Your task to perform on an android device: turn off location Image 0: 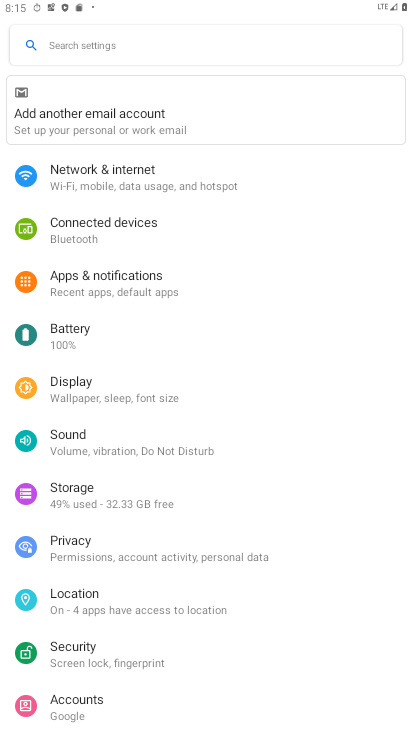
Step 0: press home button
Your task to perform on an android device: turn off location Image 1: 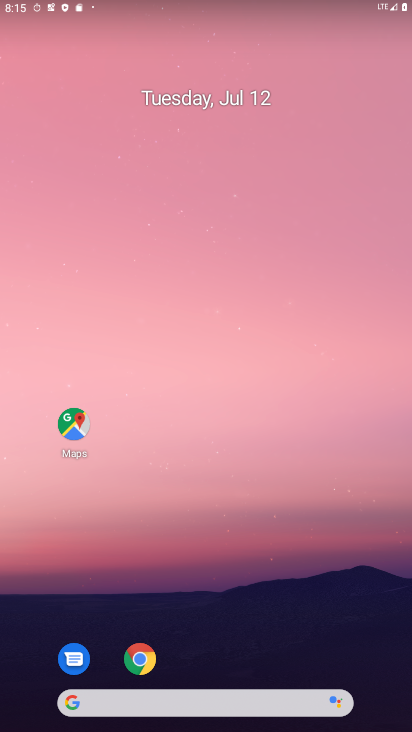
Step 1: drag from (284, 527) to (409, 427)
Your task to perform on an android device: turn off location Image 2: 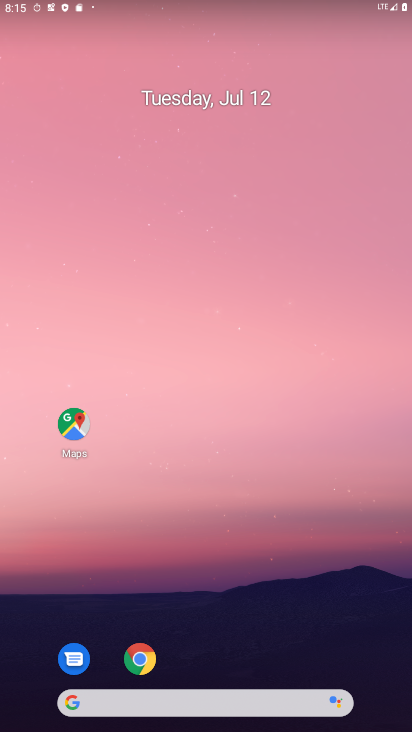
Step 2: drag from (185, 168) to (131, 26)
Your task to perform on an android device: turn off location Image 3: 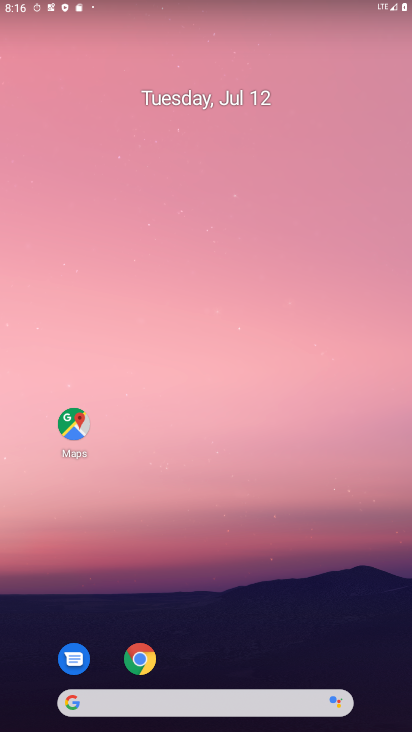
Step 3: drag from (386, 678) to (242, 16)
Your task to perform on an android device: turn off location Image 4: 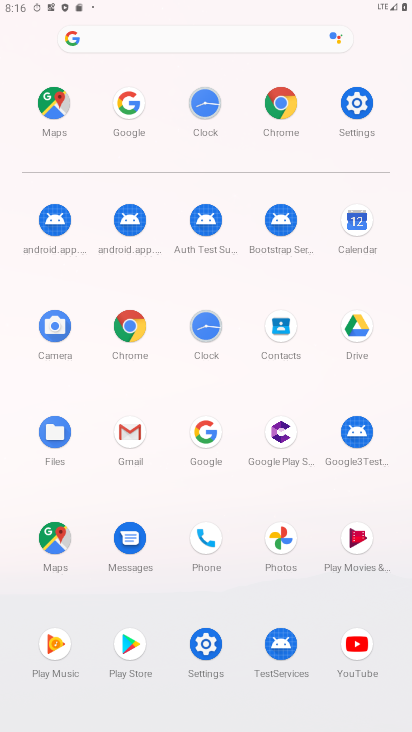
Step 4: click (206, 654)
Your task to perform on an android device: turn off location Image 5: 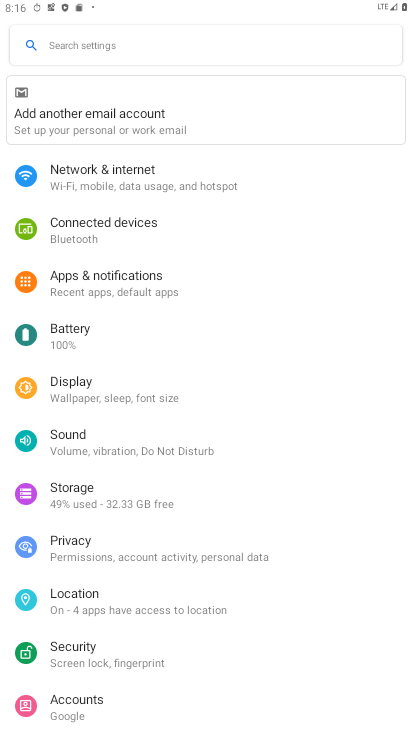
Step 5: click (77, 599)
Your task to perform on an android device: turn off location Image 6: 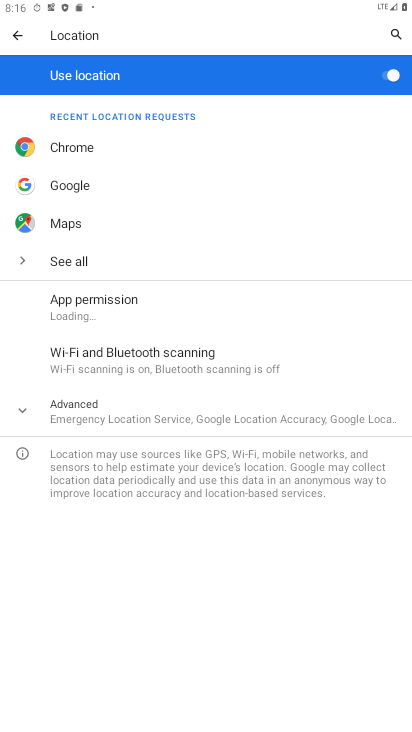
Step 6: click (360, 67)
Your task to perform on an android device: turn off location Image 7: 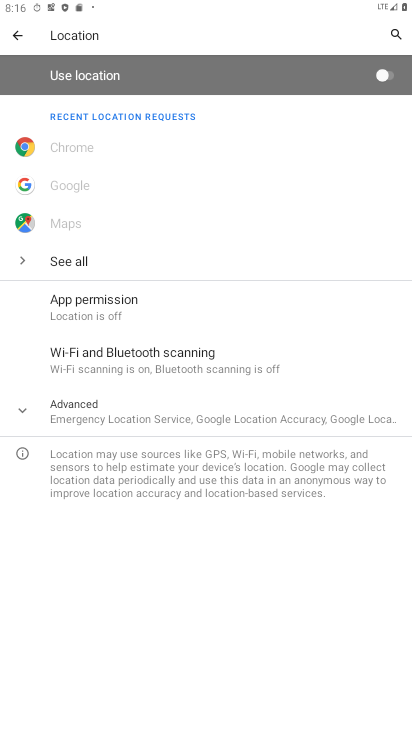
Step 7: task complete